Your task to perform on an android device: find photos in the google photos app Image 0: 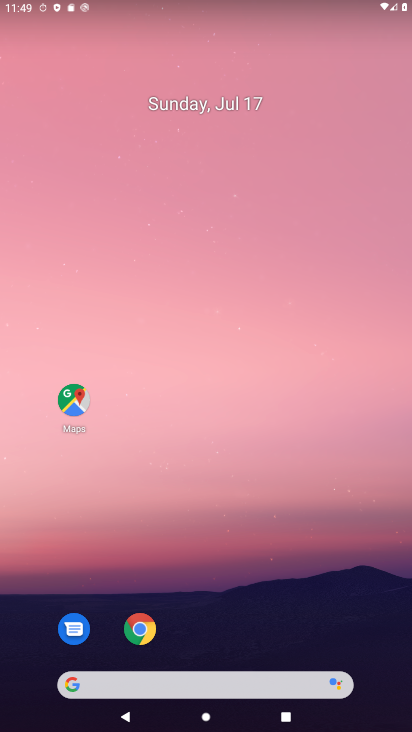
Step 0: drag from (217, 648) to (193, 15)
Your task to perform on an android device: find photos in the google photos app Image 1: 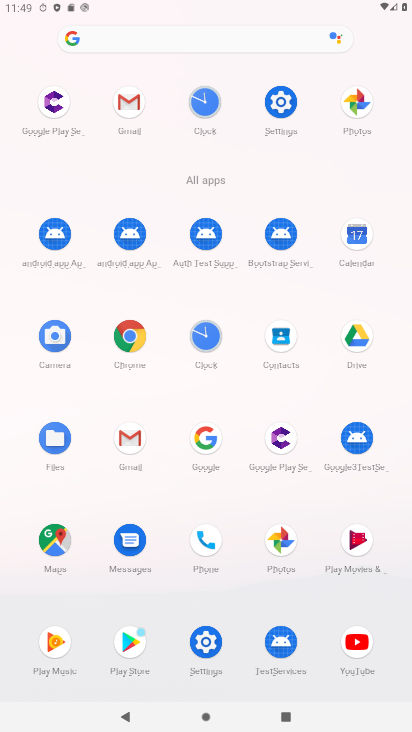
Step 1: click (278, 538)
Your task to perform on an android device: find photos in the google photos app Image 2: 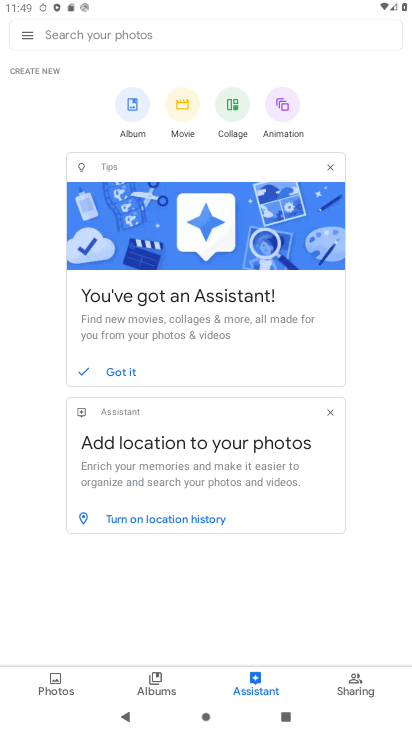
Step 2: click (54, 673)
Your task to perform on an android device: find photos in the google photos app Image 3: 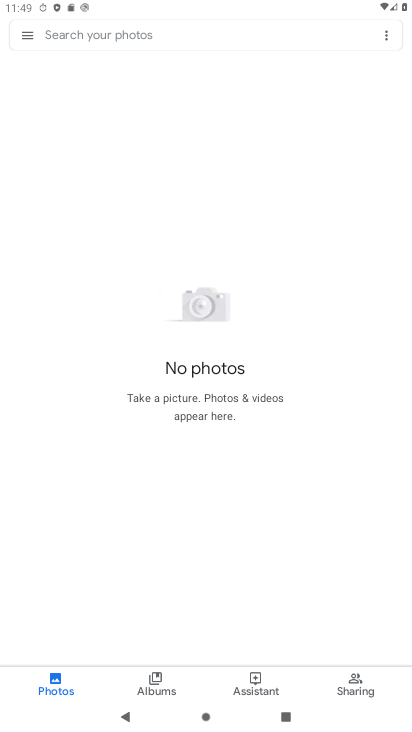
Step 3: task complete